Your task to perform on an android device: Open Chrome and go to settings Image 0: 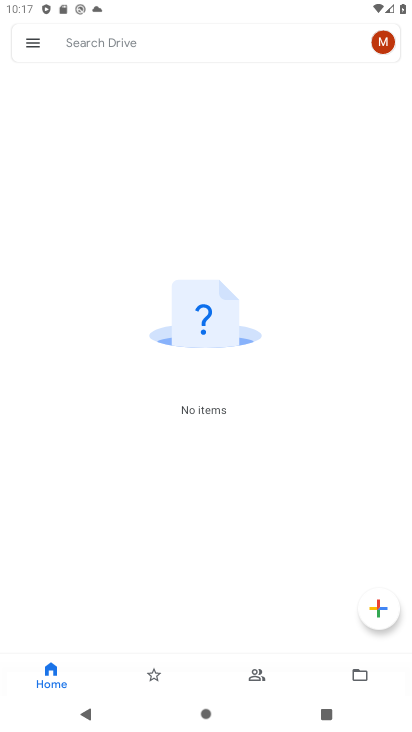
Step 0: press home button
Your task to perform on an android device: Open Chrome and go to settings Image 1: 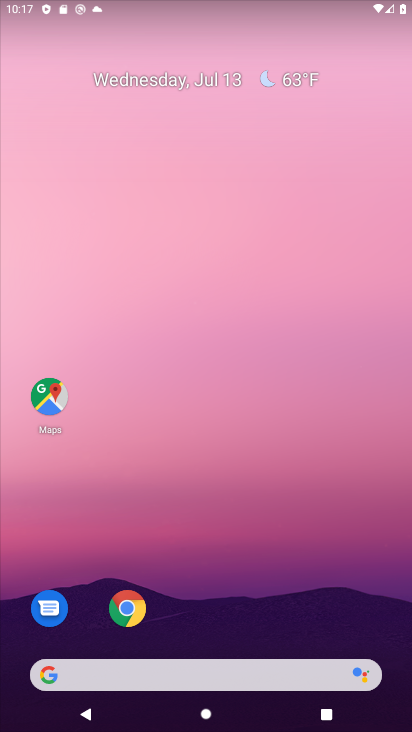
Step 1: drag from (199, 653) to (298, 190)
Your task to perform on an android device: Open Chrome and go to settings Image 2: 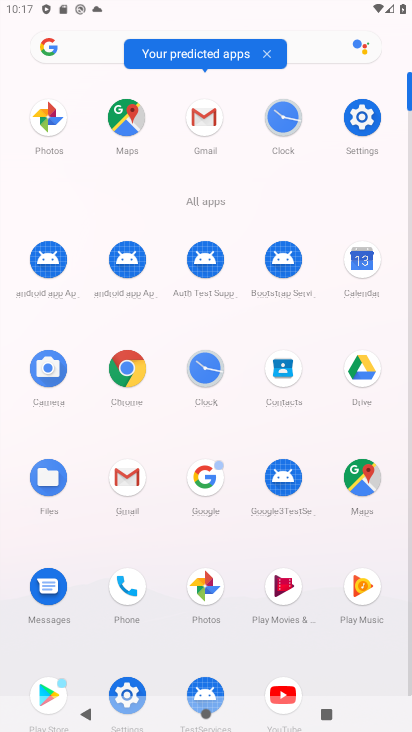
Step 2: click (130, 387)
Your task to perform on an android device: Open Chrome and go to settings Image 3: 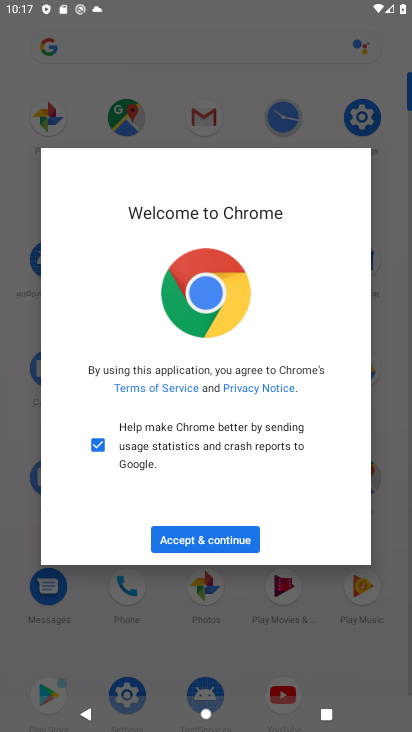
Step 3: click (196, 539)
Your task to perform on an android device: Open Chrome and go to settings Image 4: 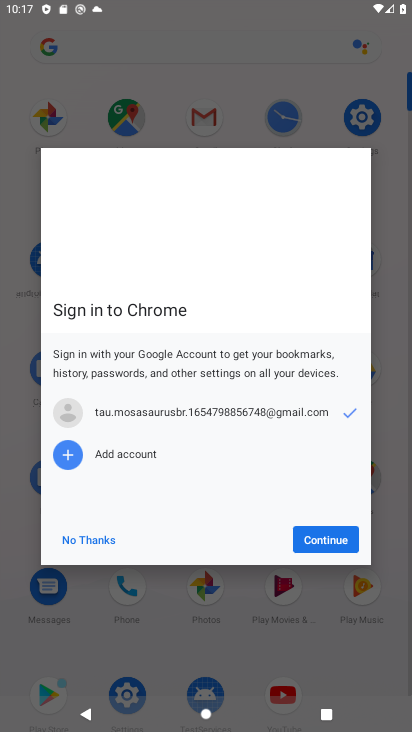
Step 4: click (342, 542)
Your task to perform on an android device: Open Chrome and go to settings Image 5: 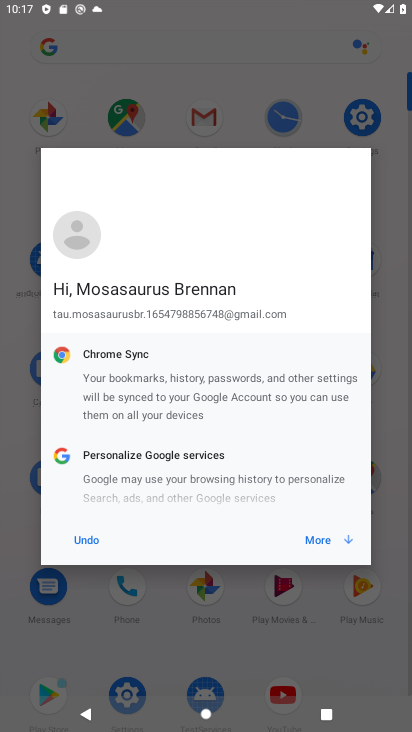
Step 5: click (341, 541)
Your task to perform on an android device: Open Chrome and go to settings Image 6: 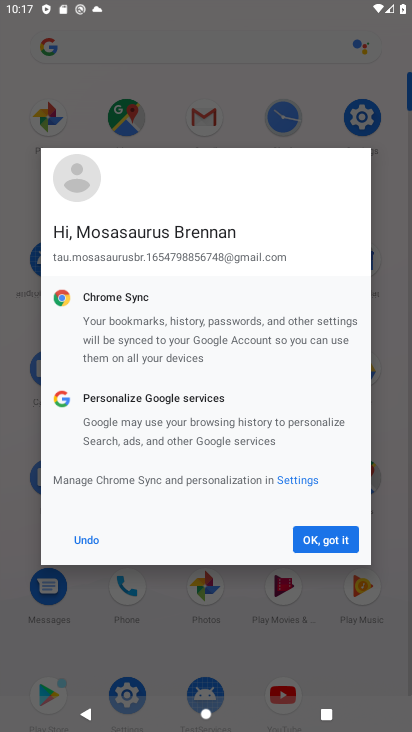
Step 6: click (341, 541)
Your task to perform on an android device: Open Chrome and go to settings Image 7: 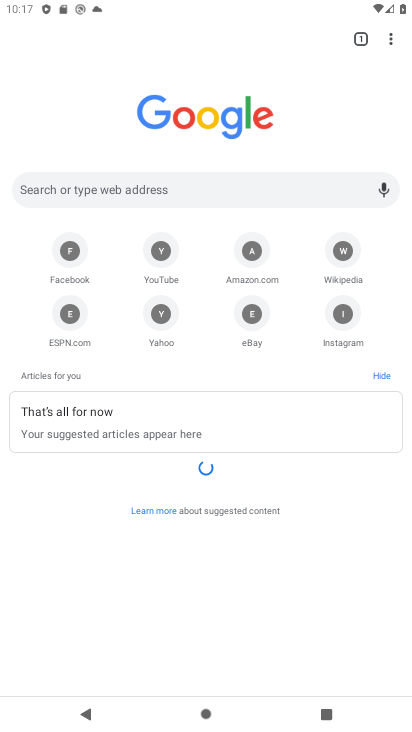
Step 7: task complete